Your task to perform on an android device: Open calendar and show me the second week of next month Image 0: 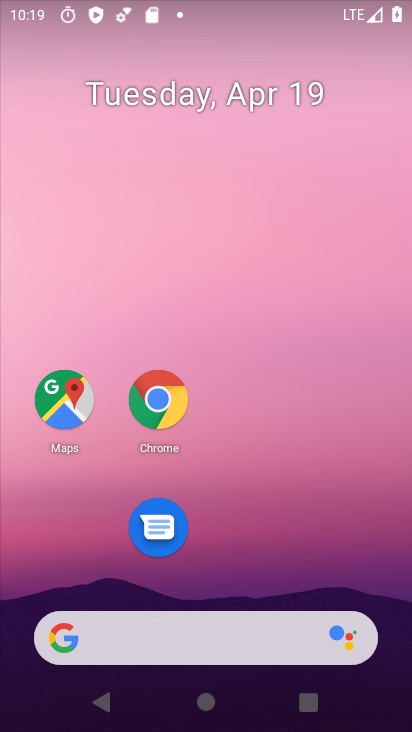
Step 0: drag from (299, 663) to (265, 98)
Your task to perform on an android device: Open calendar and show me the second week of next month Image 1: 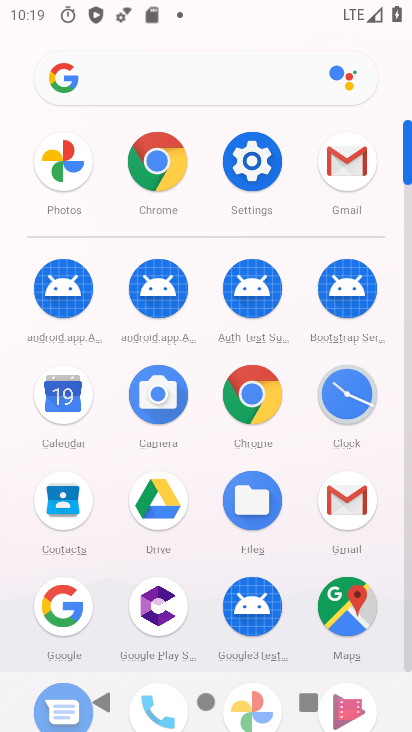
Step 1: click (73, 391)
Your task to perform on an android device: Open calendar and show me the second week of next month Image 2: 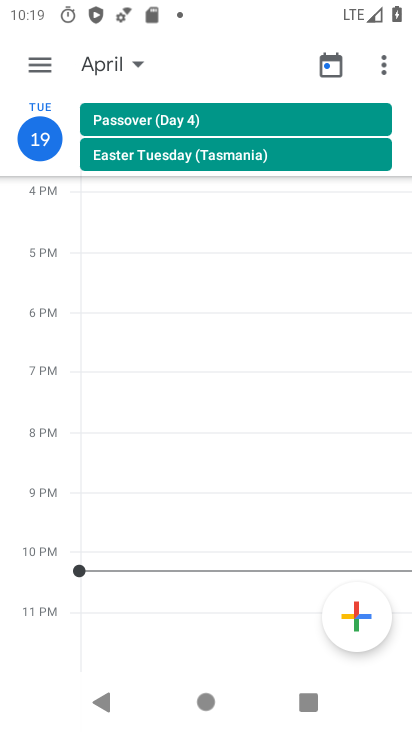
Step 2: click (38, 68)
Your task to perform on an android device: Open calendar and show me the second week of next month Image 3: 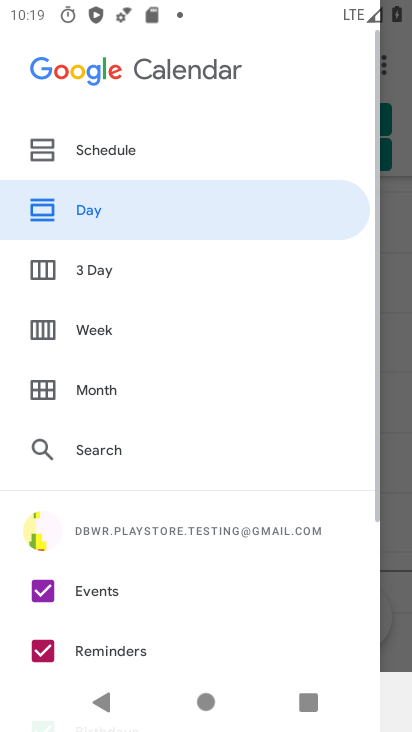
Step 3: click (112, 397)
Your task to perform on an android device: Open calendar and show me the second week of next month Image 4: 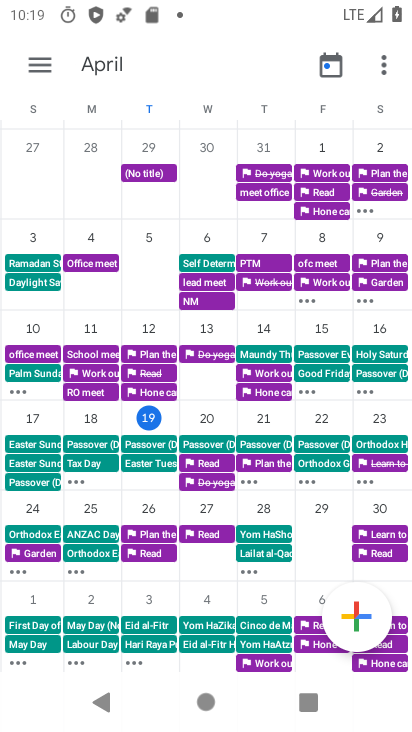
Step 4: drag from (377, 401) to (1, 474)
Your task to perform on an android device: Open calendar and show me the second week of next month Image 5: 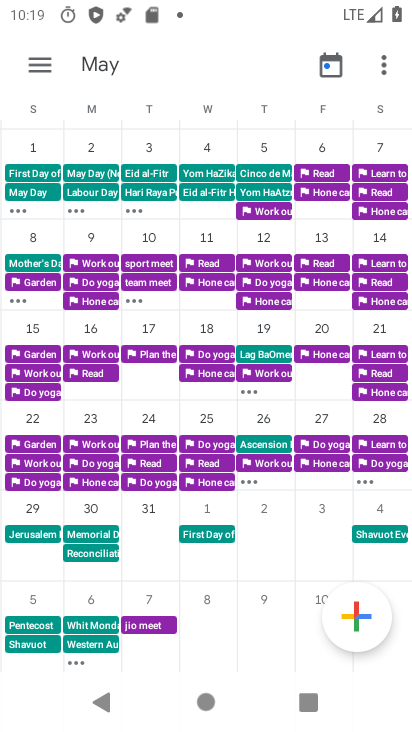
Step 5: click (80, 263)
Your task to perform on an android device: Open calendar and show me the second week of next month Image 6: 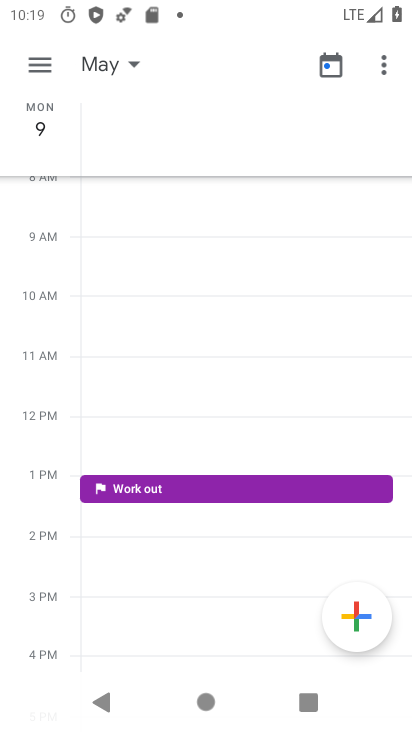
Step 6: task complete